Your task to perform on an android device: turn on showing notifications on the lock screen Image 0: 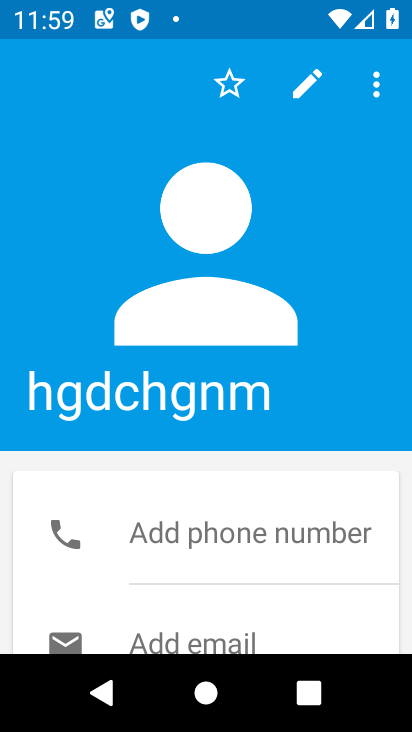
Step 0: press home button
Your task to perform on an android device: turn on showing notifications on the lock screen Image 1: 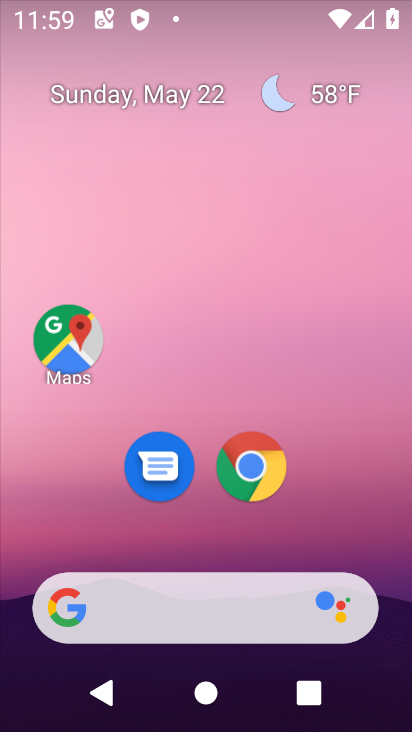
Step 1: drag from (215, 541) to (226, 91)
Your task to perform on an android device: turn on showing notifications on the lock screen Image 2: 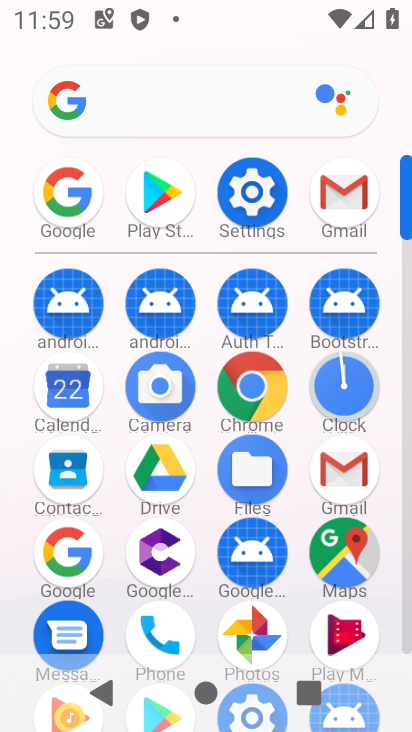
Step 2: click (250, 187)
Your task to perform on an android device: turn on showing notifications on the lock screen Image 3: 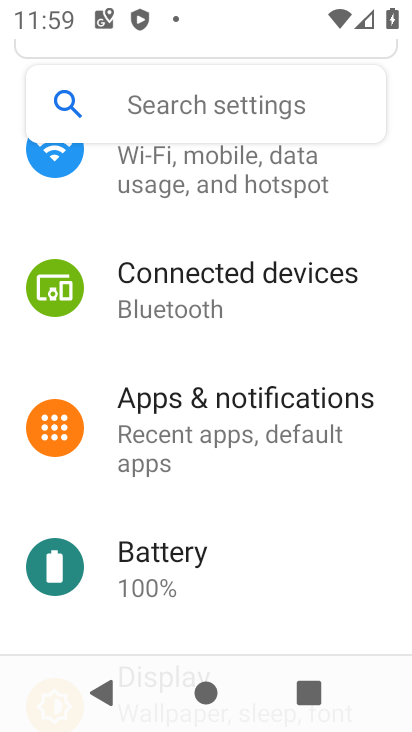
Step 3: click (186, 417)
Your task to perform on an android device: turn on showing notifications on the lock screen Image 4: 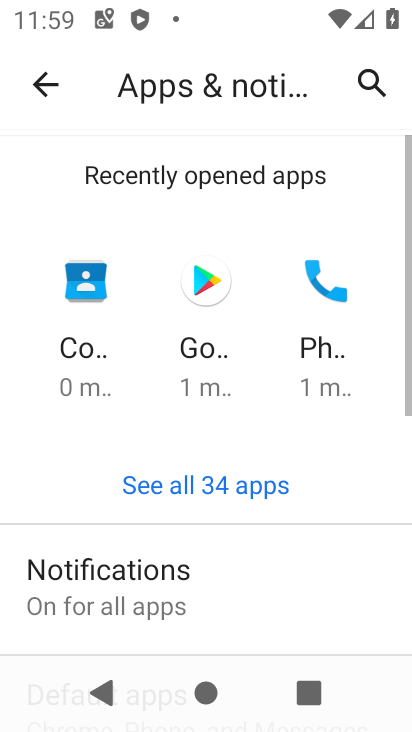
Step 4: click (176, 583)
Your task to perform on an android device: turn on showing notifications on the lock screen Image 5: 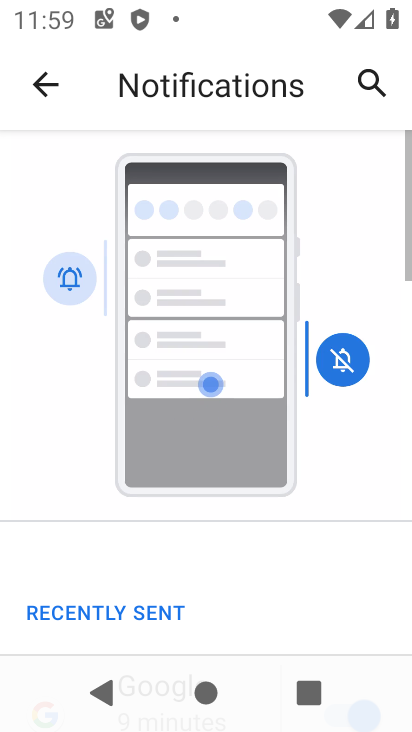
Step 5: drag from (239, 559) to (306, 82)
Your task to perform on an android device: turn on showing notifications on the lock screen Image 6: 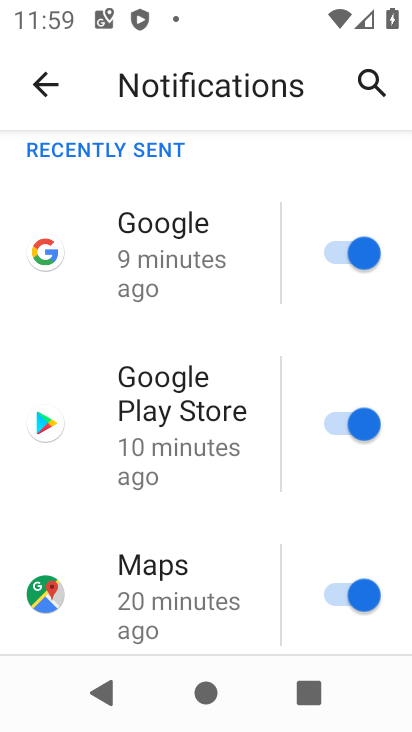
Step 6: drag from (197, 573) to (195, 104)
Your task to perform on an android device: turn on showing notifications on the lock screen Image 7: 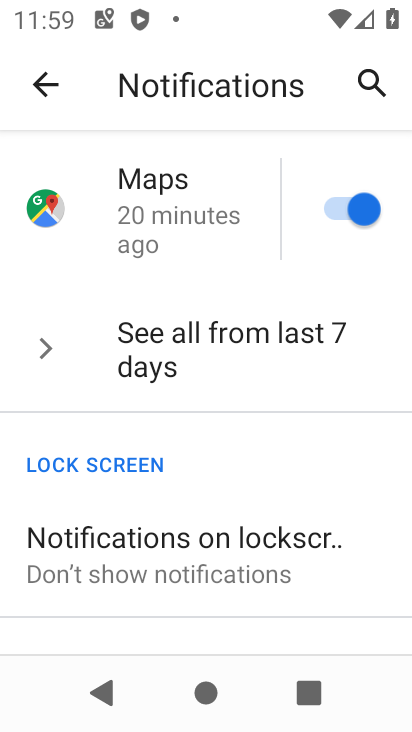
Step 7: click (168, 575)
Your task to perform on an android device: turn on showing notifications on the lock screen Image 8: 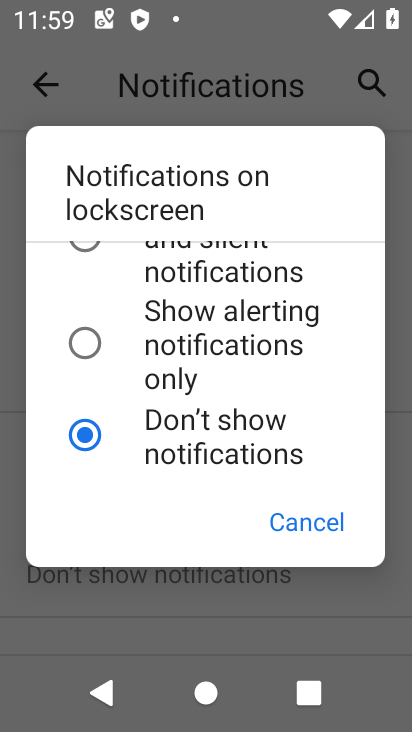
Step 8: click (85, 247)
Your task to perform on an android device: turn on showing notifications on the lock screen Image 9: 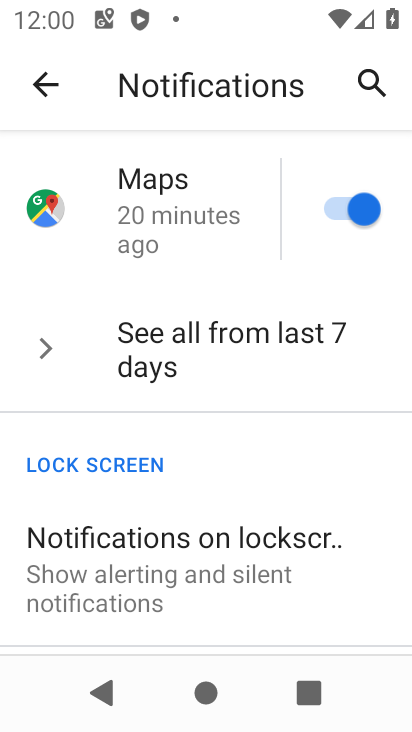
Step 9: task complete